Your task to perform on an android device: check google app version Image 0: 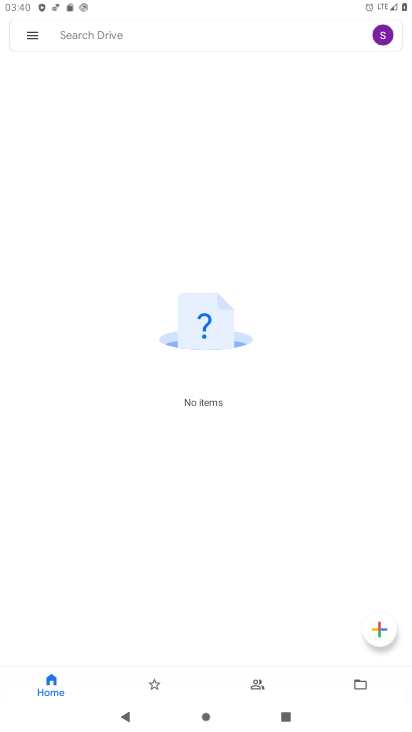
Step 0: press home button
Your task to perform on an android device: check google app version Image 1: 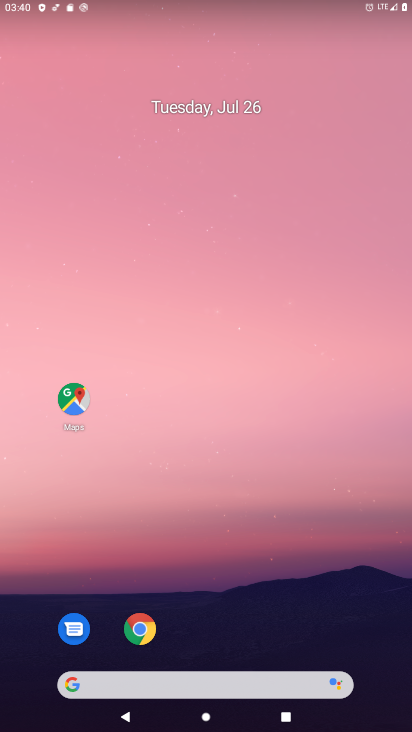
Step 1: drag from (269, 607) to (322, 58)
Your task to perform on an android device: check google app version Image 2: 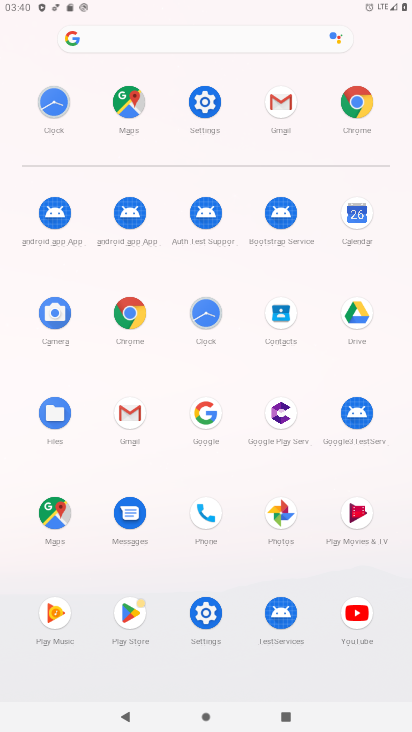
Step 2: click (209, 407)
Your task to perform on an android device: check google app version Image 3: 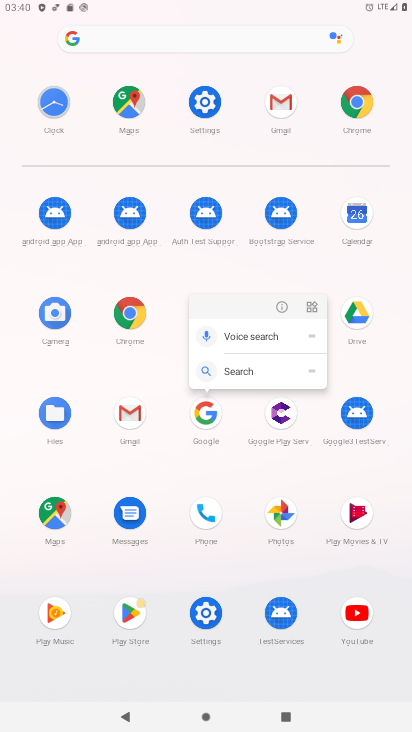
Step 3: click (276, 307)
Your task to perform on an android device: check google app version Image 4: 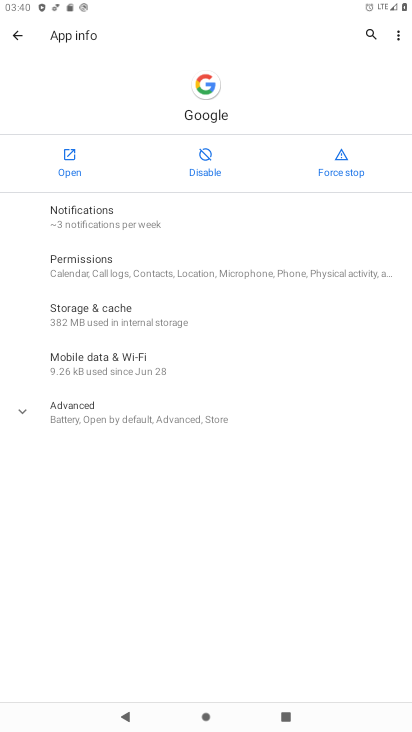
Step 4: click (147, 416)
Your task to perform on an android device: check google app version Image 5: 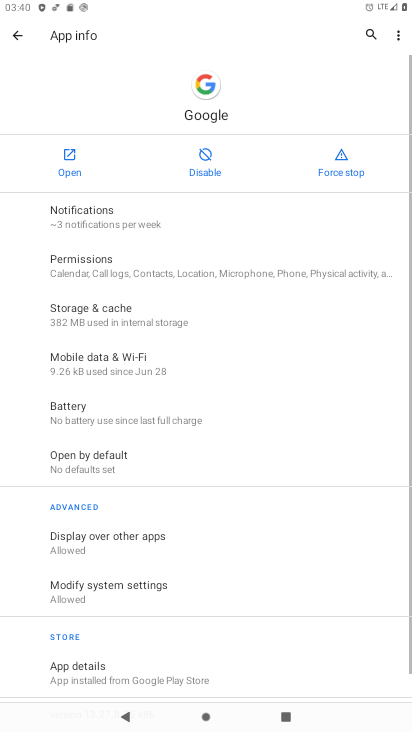
Step 5: task complete